Your task to perform on an android device: Is it going to rain tomorrow? Image 0: 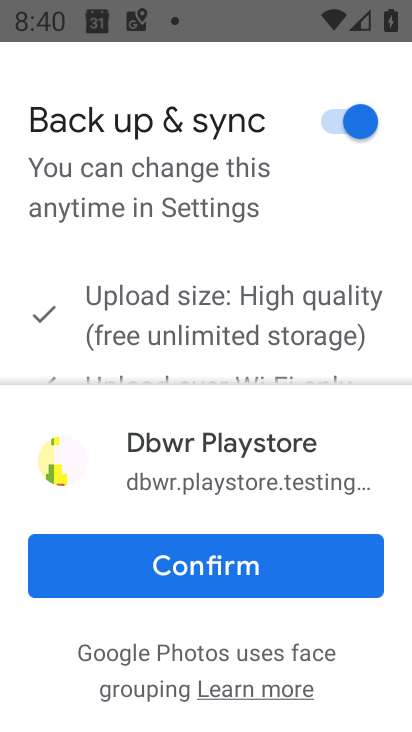
Step 0: press home button
Your task to perform on an android device: Is it going to rain tomorrow? Image 1: 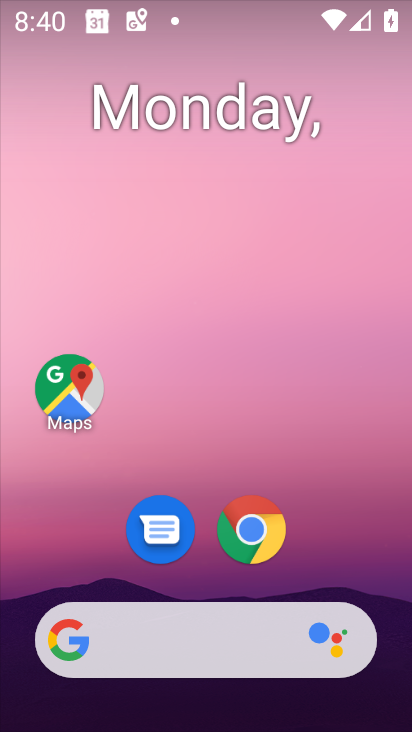
Step 1: click (159, 636)
Your task to perform on an android device: Is it going to rain tomorrow? Image 2: 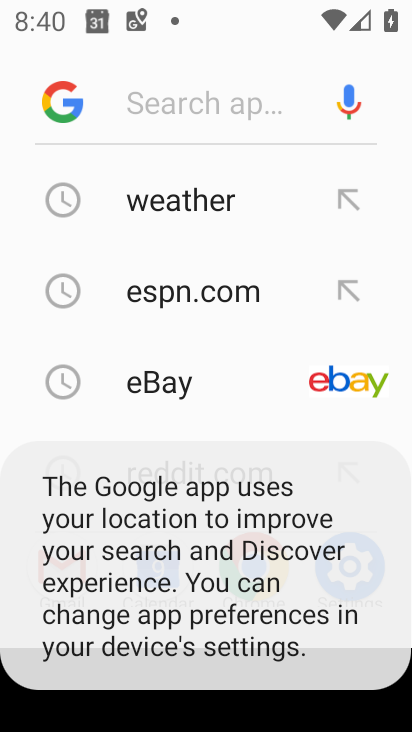
Step 2: click (141, 204)
Your task to perform on an android device: Is it going to rain tomorrow? Image 3: 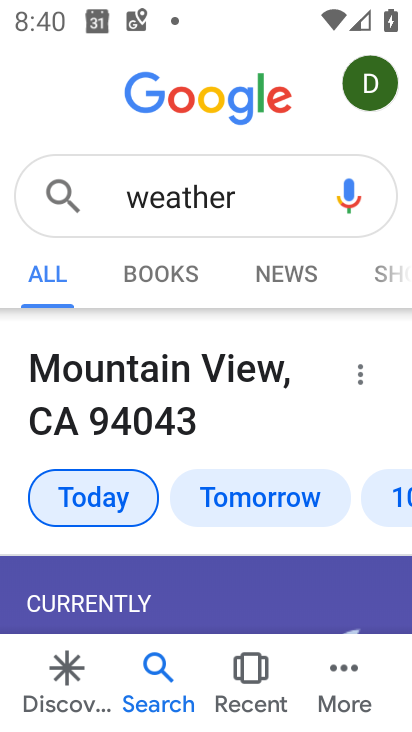
Step 3: task complete